Your task to perform on an android device: Go to notification settings Image 0: 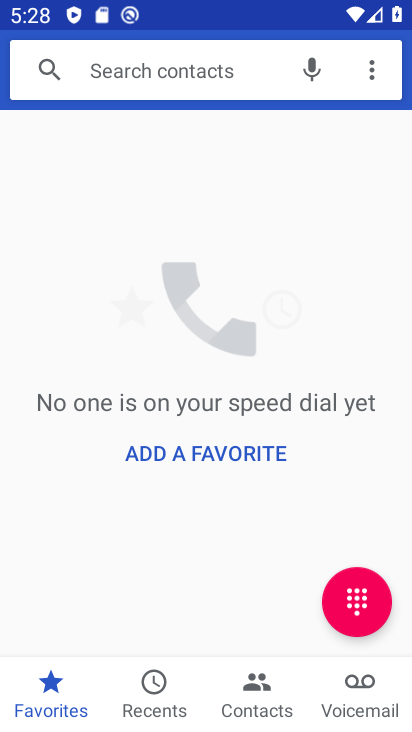
Step 0: drag from (220, 9) to (216, 166)
Your task to perform on an android device: Go to notification settings Image 1: 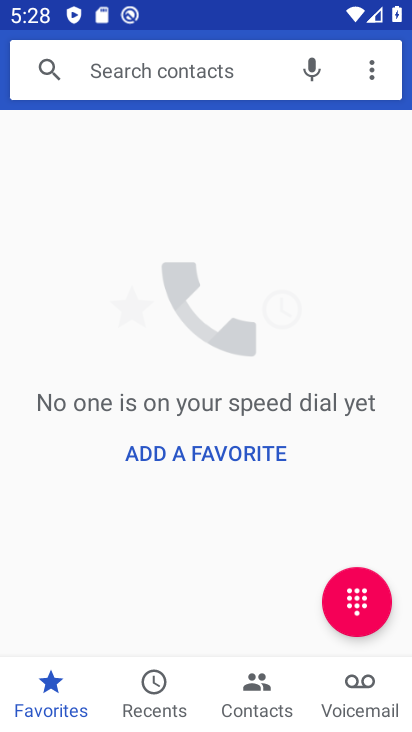
Step 1: press home button
Your task to perform on an android device: Go to notification settings Image 2: 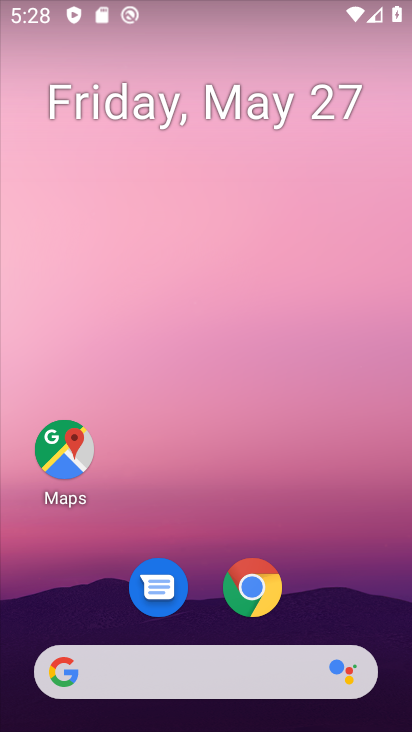
Step 2: drag from (300, 545) to (246, 105)
Your task to perform on an android device: Go to notification settings Image 3: 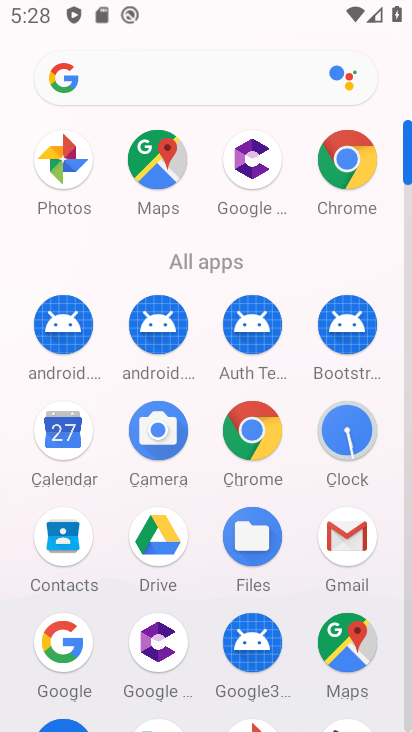
Step 3: drag from (187, 370) to (224, 52)
Your task to perform on an android device: Go to notification settings Image 4: 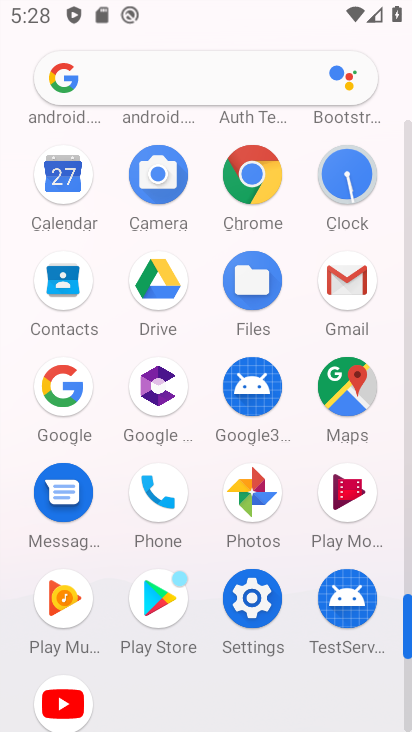
Step 4: click (262, 582)
Your task to perform on an android device: Go to notification settings Image 5: 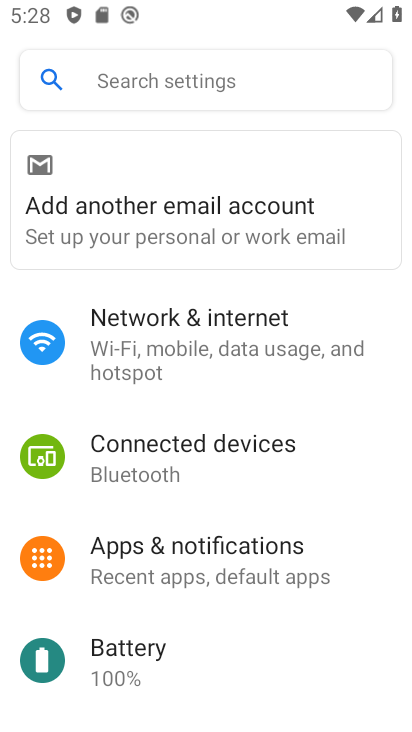
Step 5: click (134, 536)
Your task to perform on an android device: Go to notification settings Image 6: 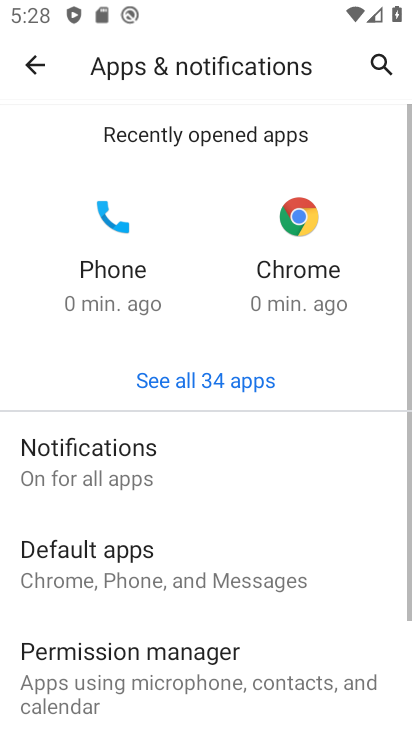
Step 6: click (82, 450)
Your task to perform on an android device: Go to notification settings Image 7: 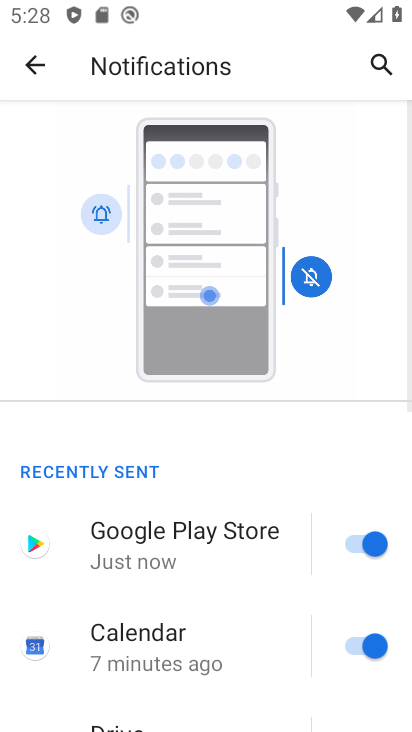
Step 7: task complete